Your task to perform on an android device: Open the Play Movies app and select the watchlist tab. Image 0: 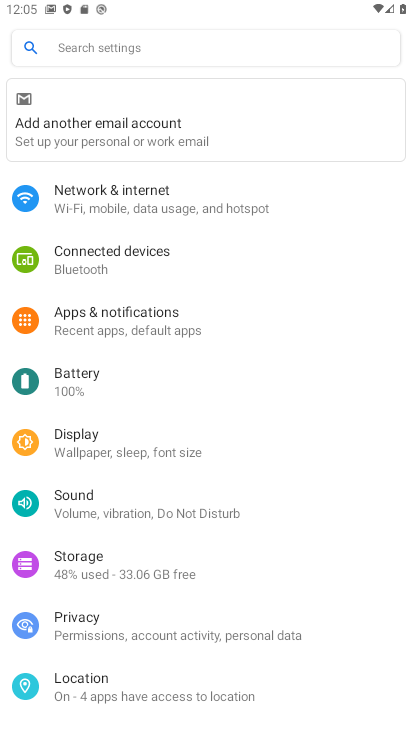
Step 0: press home button
Your task to perform on an android device: Open the Play Movies app and select the watchlist tab. Image 1: 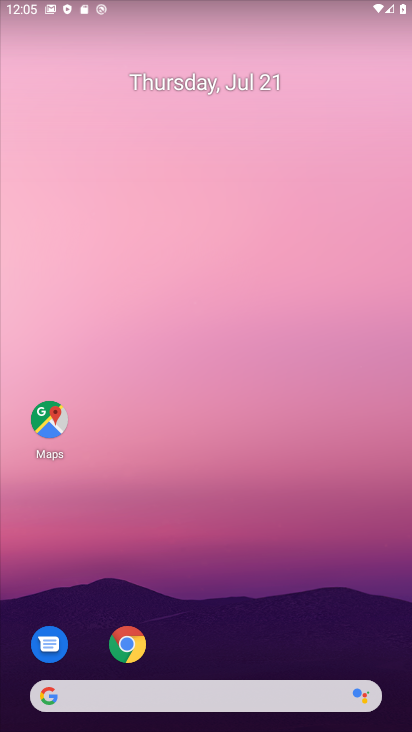
Step 1: drag from (196, 656) to (192, 12)
Your task to perform on an android device: Open the Play Movies app and select the watchlist tab. Image 2: 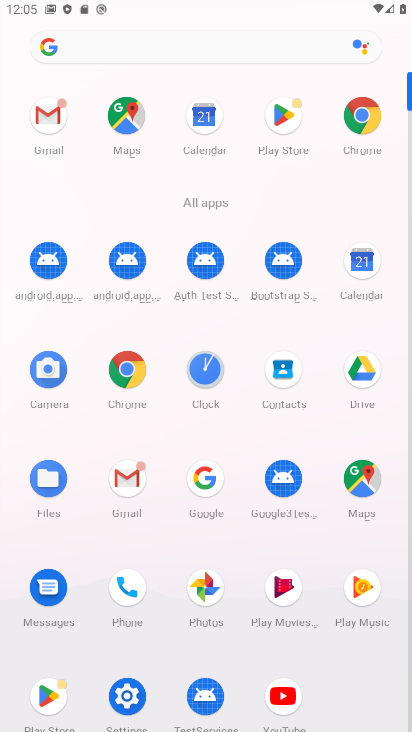
Step 2: click (288, 597)
Your task to perform on an android device: Open the Play Movies app and select the watchlist tab. Image 3: 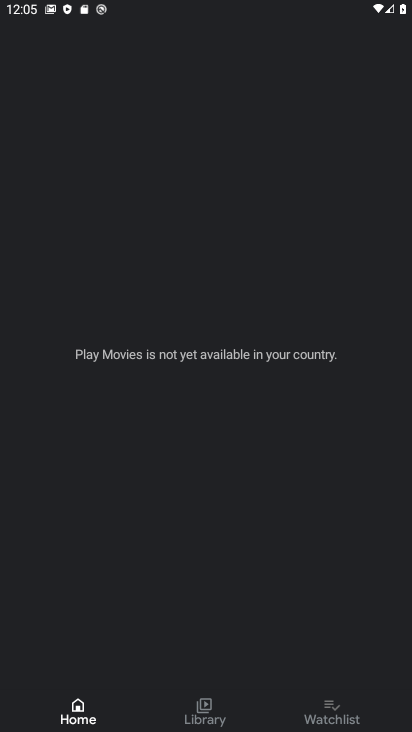
Step 3: click (318, 698)
Your task to perform on an android device: Open the Play Movies app and select the watchlist tab. Image 4: 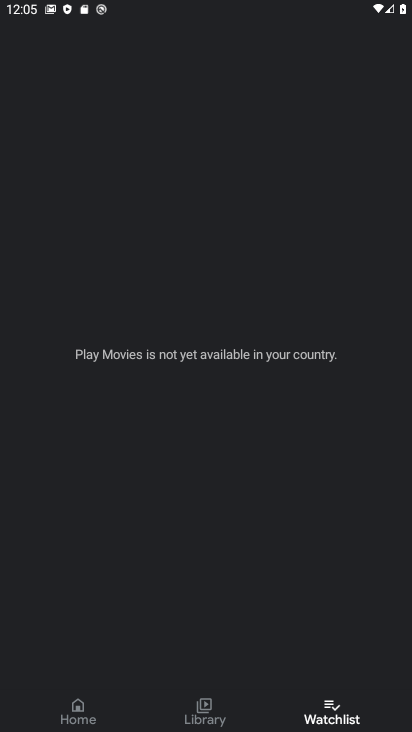
Step 4: task complete